Your task to perform on an android device: Open Maps and search for coffee Image 0: 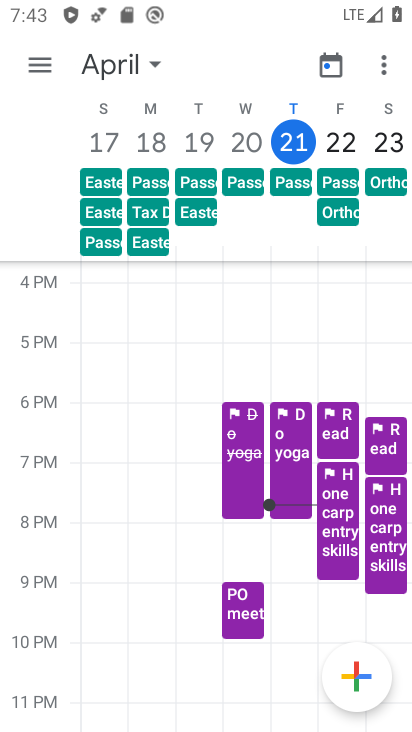
Step 0: press home button
Your task to perform on an android device: Open Maps and search for coffee Image 1: 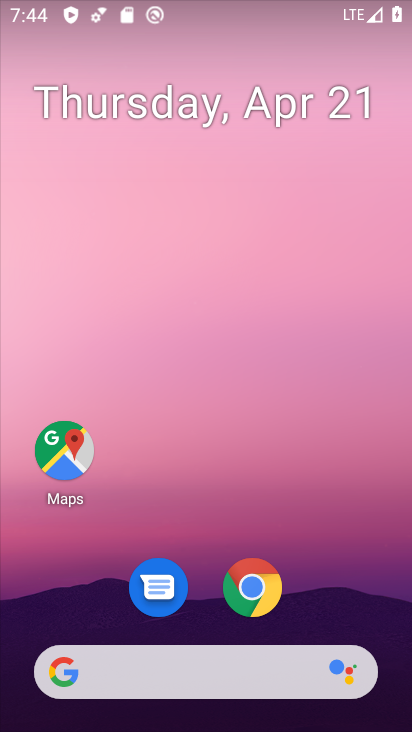
Step 1: click (60, 442)
Your task to perform on an android device: Open Maps and search for coffee Image 2: 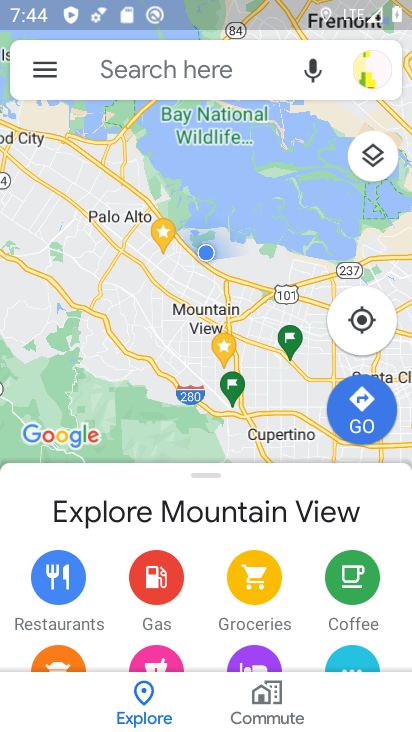
Step 2: click (118, 66)
Your task to perform on an android device: Open Maps and search for coffee Image 3: 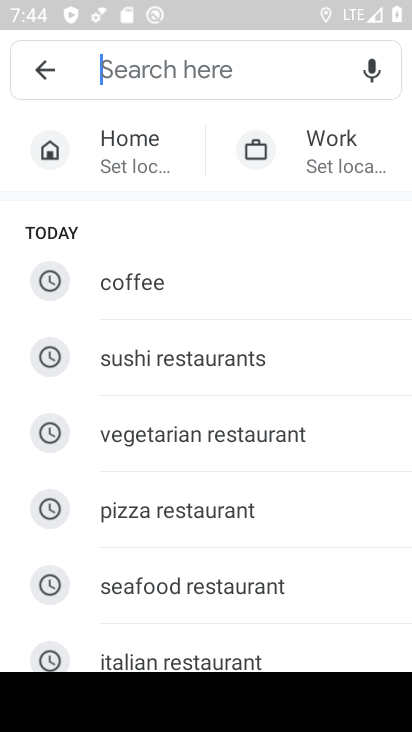
Step 3: type "coffee"
Your task to perform on an android device: Open Maps and search for coffee Image 4: 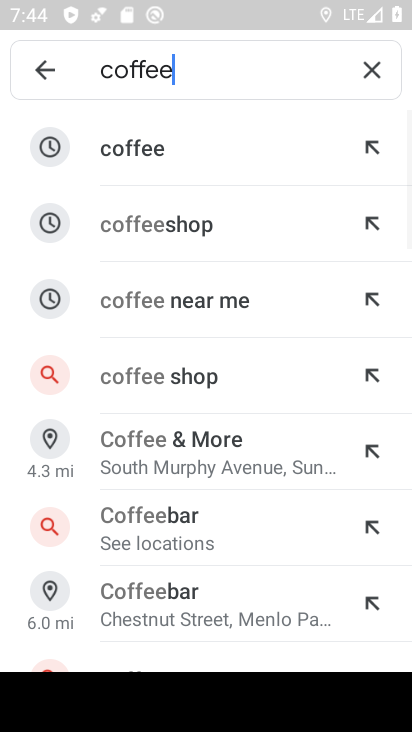
Step 4: click (117, 144)
Your task to perform on an android device: Open Maps and search for coffee Image 5: 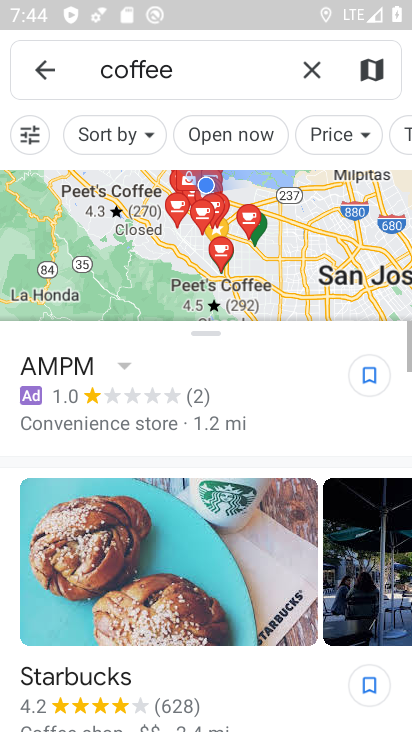
Step 5: task complete